Your task to perform on an android device: turn off javascript in the chrome app Image 0: 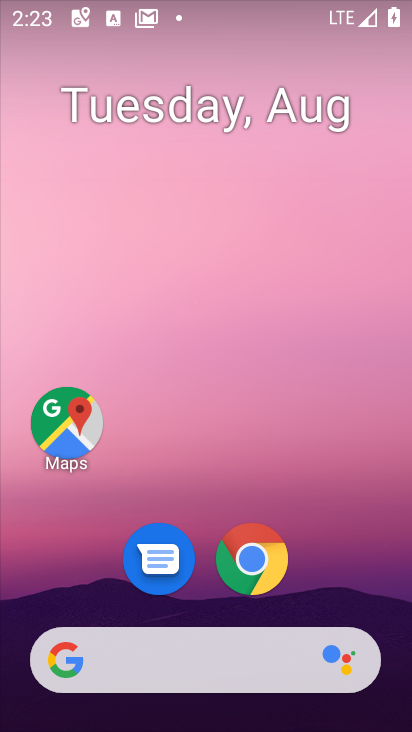
Step 0: click (266, 557)
Your task to perform on an android device: turn off javascript in the chrome app Image 1: 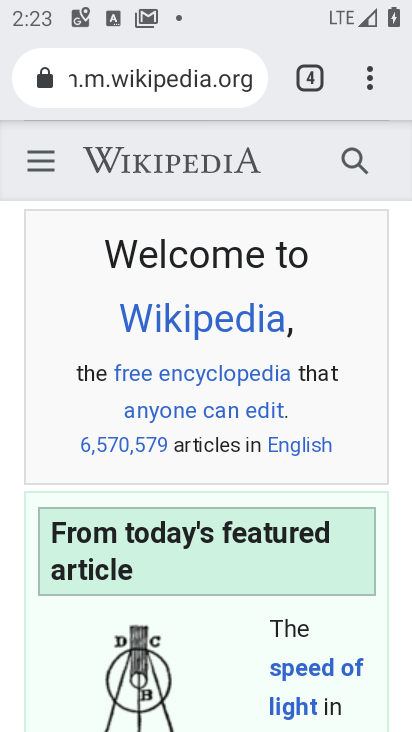
Step 1: click (377, 68)
Your task to perform on an android device: turn off javascript in the chrome app Image 2: 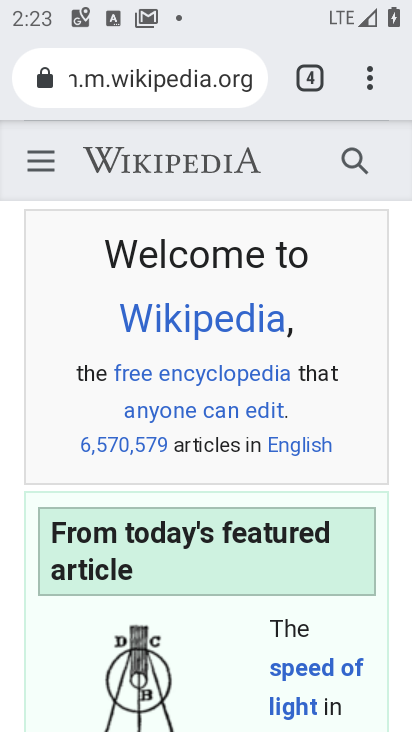
Step 2: drag from (377, 68) to (119, 626)
Your task to perform on an android device: turn off javascript in the chrome app Image 3: 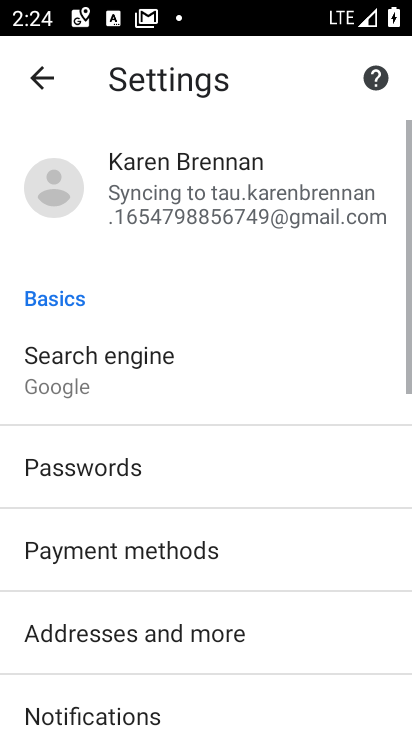
Step 3: drag from (121, 610) to (139, 265)
Your task to perform on an android device: turn off javascript in the chrome app Image 4: 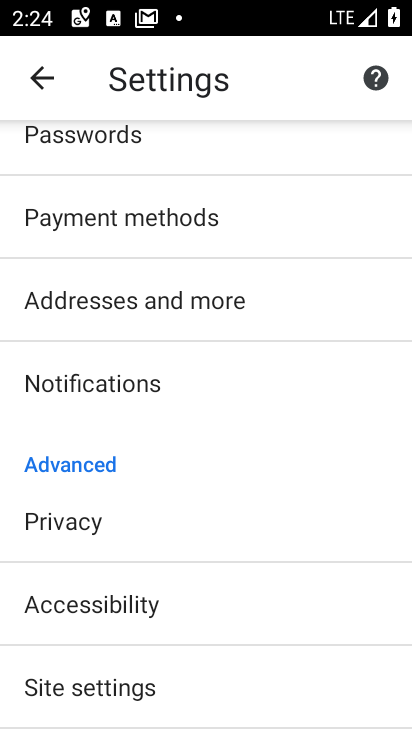
Step 4: click (121, 681)
Your task to perform on an android device: turn off javascript in the chrome app Image 5: 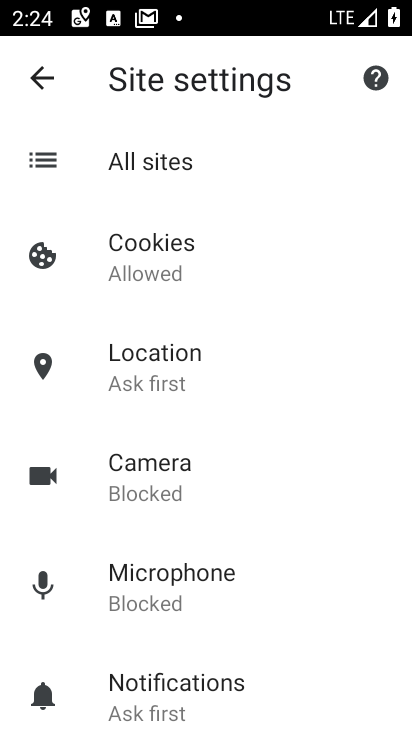
Step 5: drag from (208, 628) to (207, 320)
Your task to perform on an android device: turn off javascript in the chrome app Image 6: 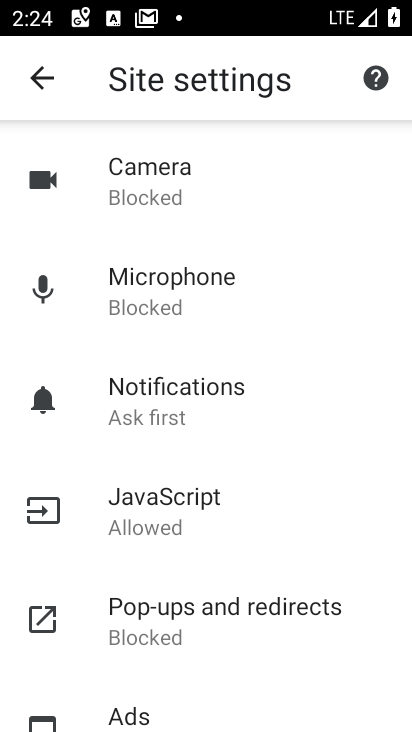
Step 6: click (189, 490)
Your task to perform on an android device: turn off javascript in the chrome app Image 7: 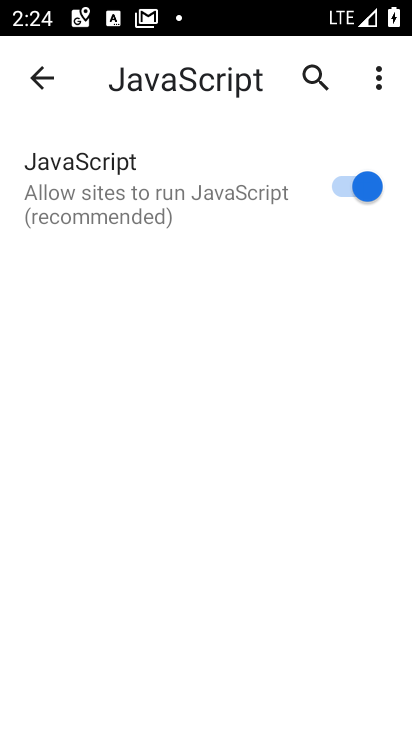
Step 7: click (358, 187)
Your task to perform on an android device: turn off javascript in the chrome app Image 8: 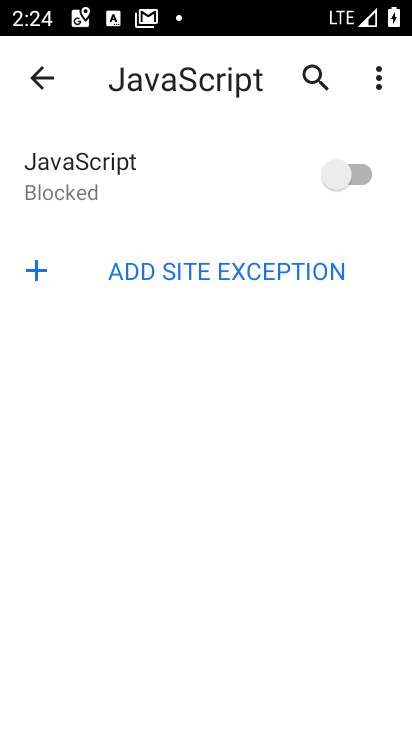
Step 8: task complete